Your task to perform on an android device: turn off notifications settings in the gmail app Image 0: 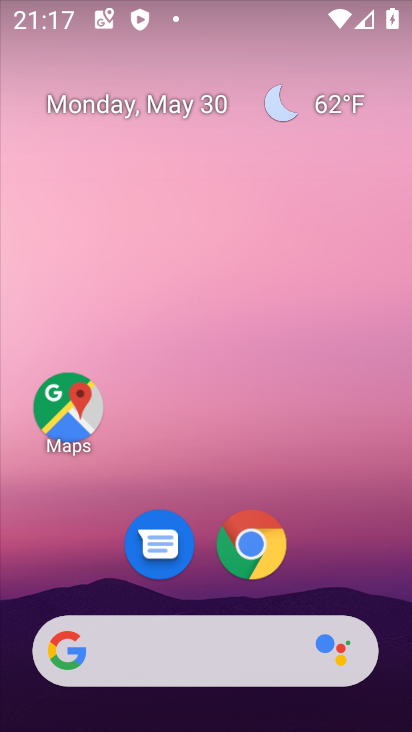
Step 0: drag from (360, 530) to (340, 188)
Your task to perform on an android device: turn off notifications settings in the gmail app Image 1: 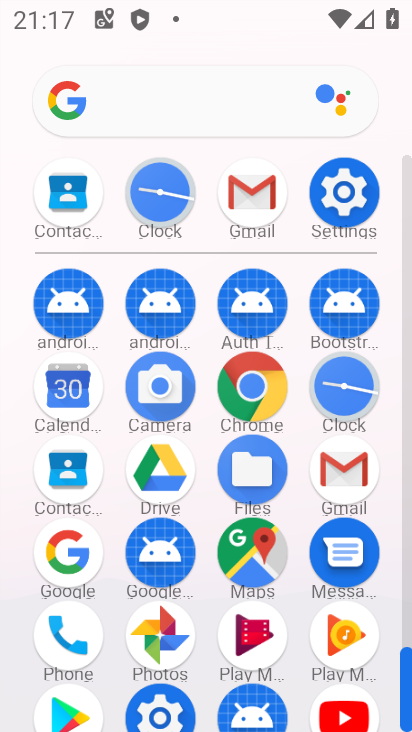
Step 1: click (248, 190)
Your task to perform on an android device: turn off notifications settings in the gmail app Image 2: 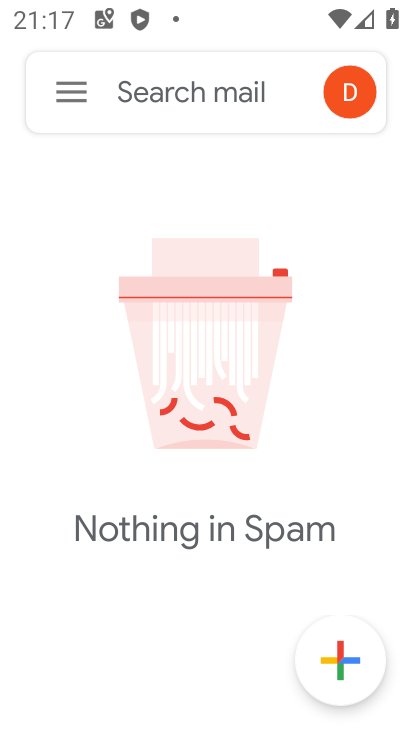
Step 2: click (75, 96)
Your task to perform on an android device: turn off notifications settings in the gmail app Image 3: 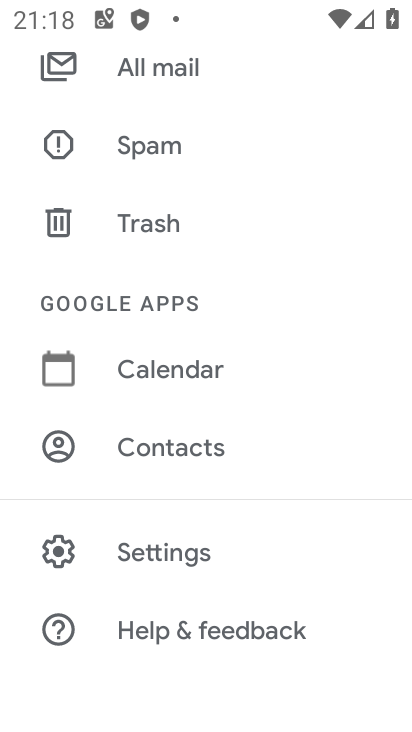
Step 3: click (171, 563)
Your task to perform on an android device: turn off notifications settings in the gmail app Image 4: 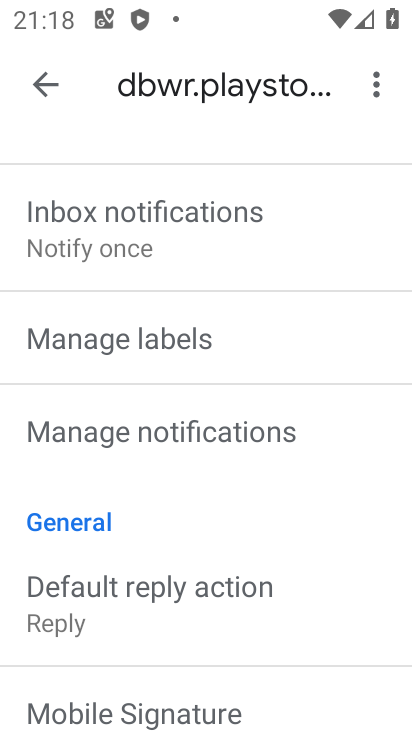
Step 4: click (155, 436)
Your task to perform on an android device: turn off notifications settings in the gmail app Image 5: 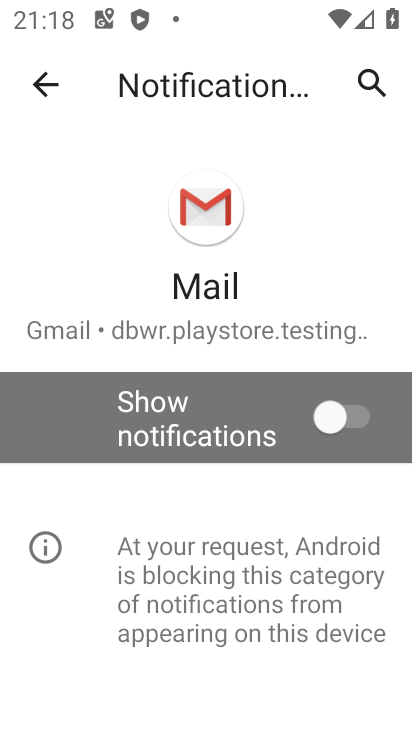
Step 5: task complete